Your task to perform on an android device: Go to eBay Image 0: 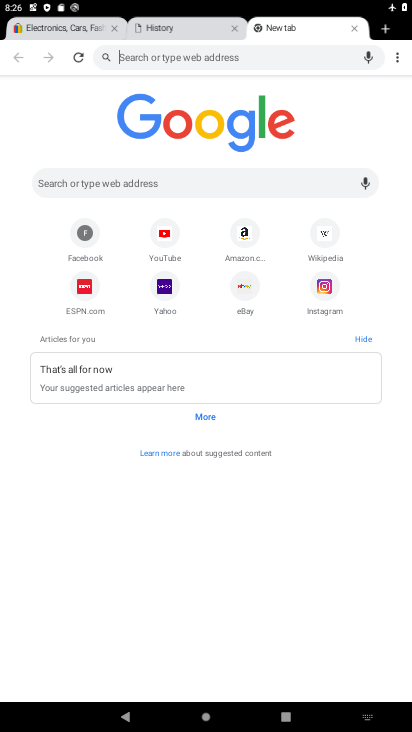
Step 0: click (217, 184)
Your task to perform on an android device: Go to eBay Image 1: 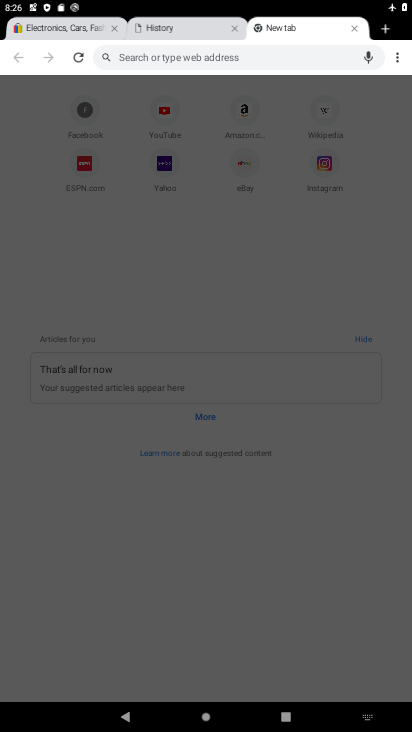
Step 1: type "ebay"
Your task to perform on an android device: Go to eBay Image 2: 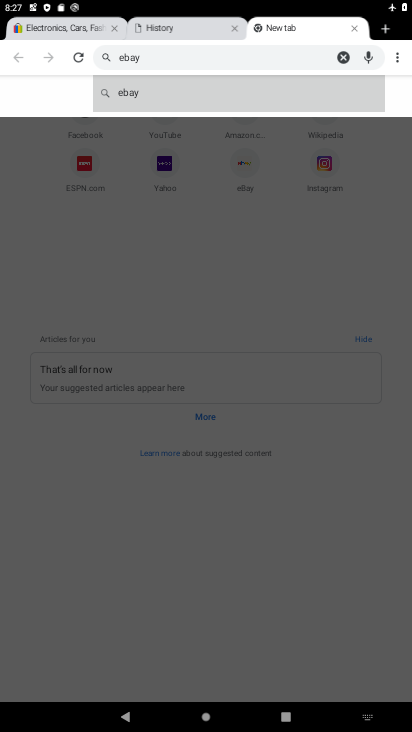
Step 2: task complete